Your task to perform on an android device: Go to privacy settings Image 0: 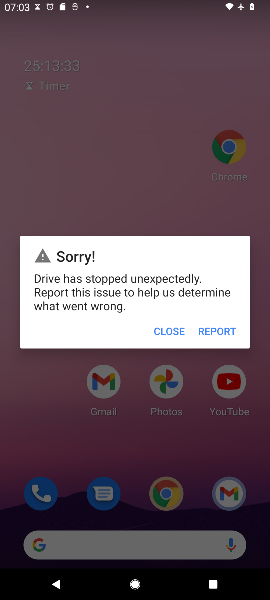
Step 0: press home button
Your task to perform on an android device: Go to privacy settings Image 1: 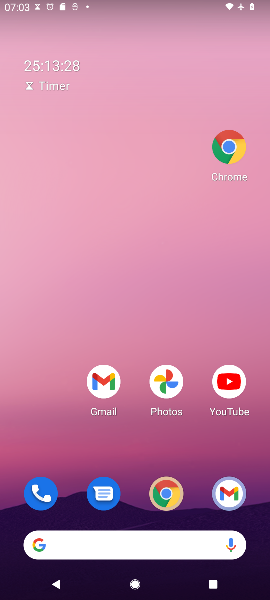
Step 1: drag from (64, 446) to (79, 38)
Your task to perform on an android device: Go to privacy settings Image 2: 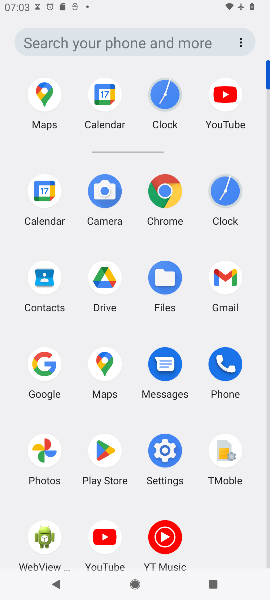
Step 2: click (166, 447)
Your task to perform on an android device: Go to privacy settings Image 3: 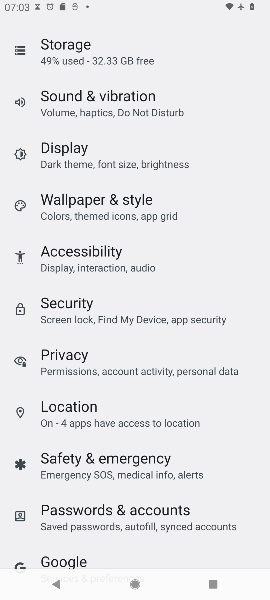
Step 3: click (58, 354)
Your task to perform on an android device: Go to privacy settings Image 4: 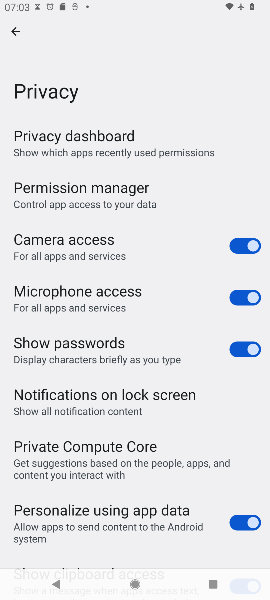
Step 4: task complete